Your task to perform on an android device: Open my contact list Image 0: 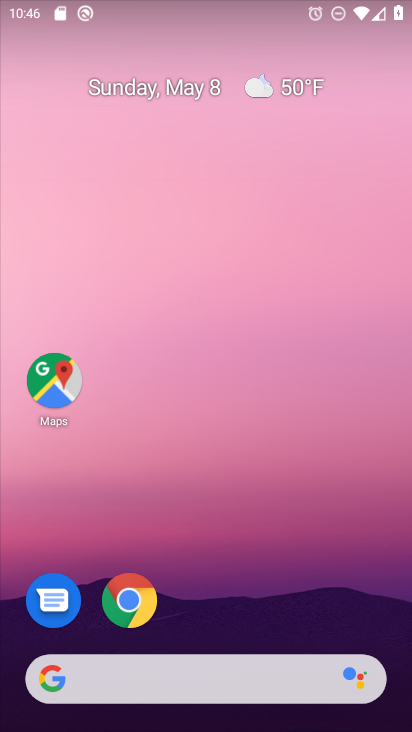
Step 0: drag from (213, 729) to (203, 220)
Your task to perform on an android device: Open my contact list Image 1: 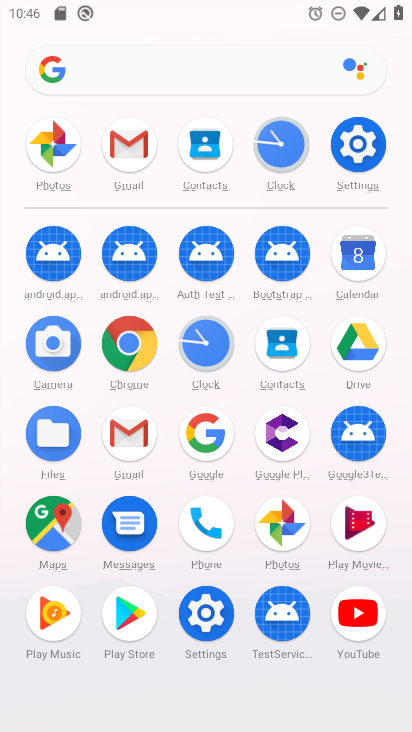
Step 1: click (281, 342)
Your task to perform on an android device: Open my contact list Image 2: 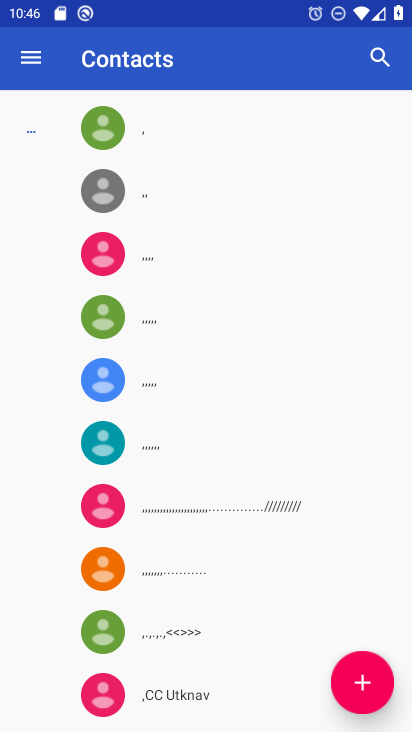
Step 2: task complete